Your task to perform on an android device: Search for a new lipgloss Image 0: 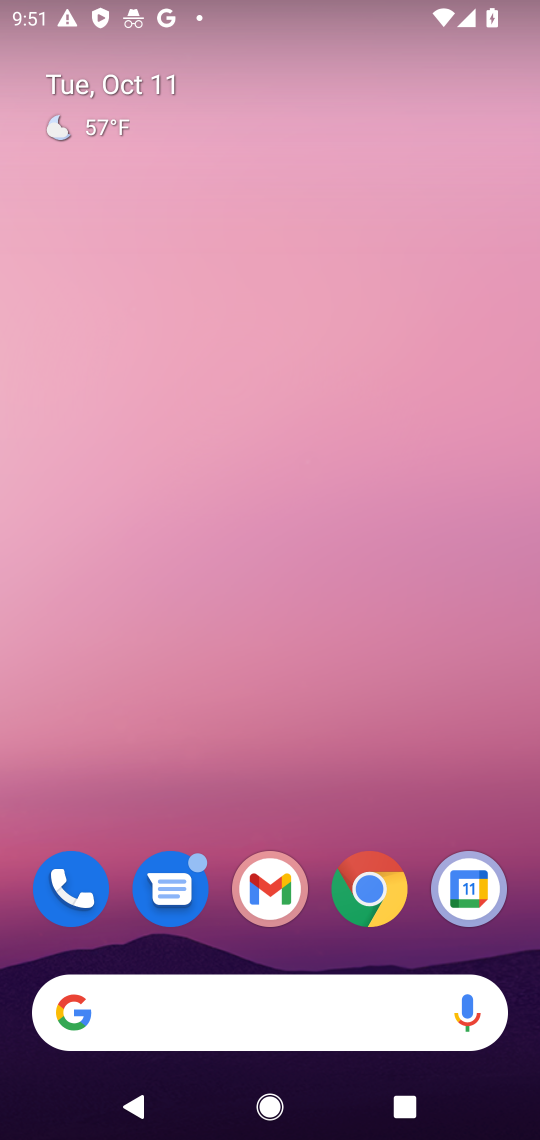
Step 0: click (260, 1019)
Your task to perform on an android device: Search for a new lipgloss Image 1: 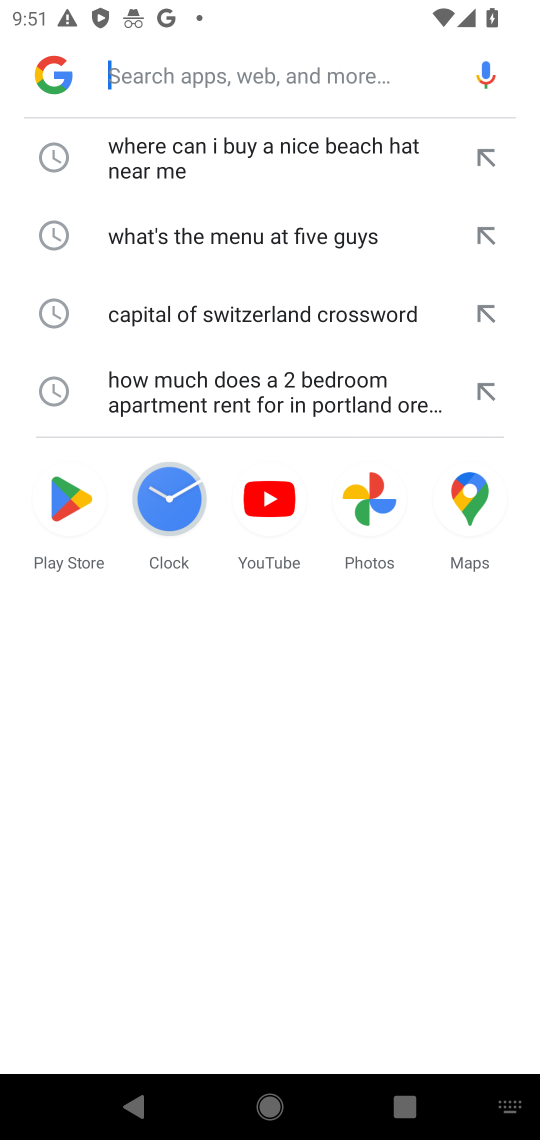
Step 1: click (130, 71)
Your task to perform on an android device: Search for a new lipgloss Image 2: 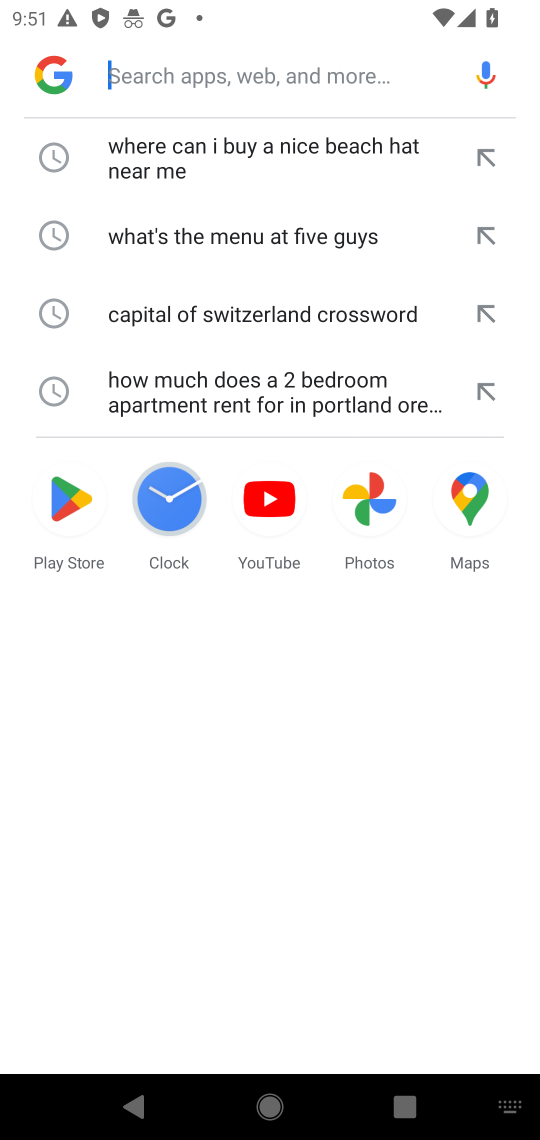
Step 2: click (208, 71)
Your task to perform on an android device: Search for a new lipgloss Image 3: 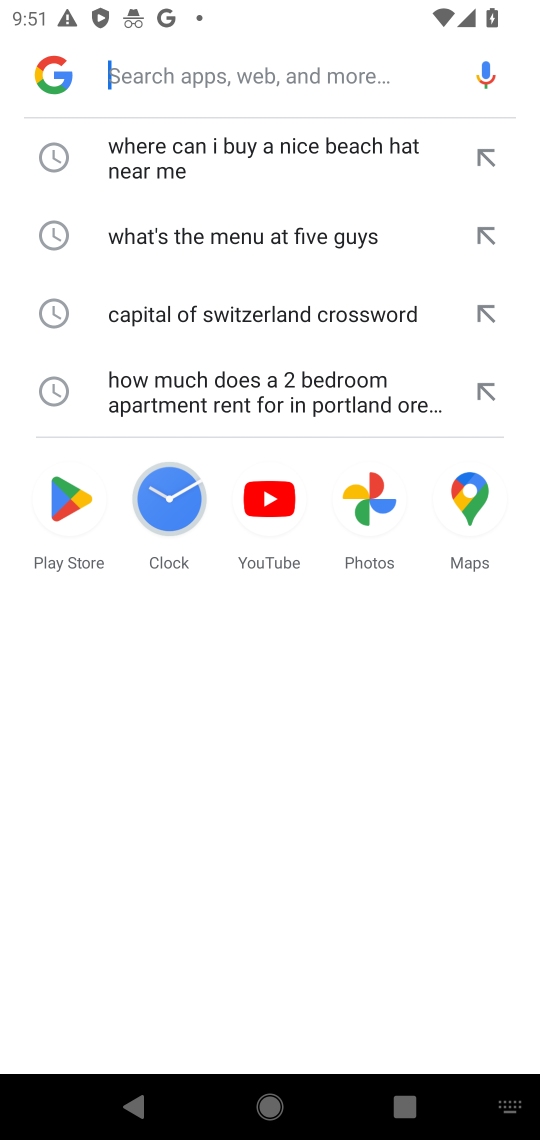
Step 3: type " new lipgloss"
Your task to perform on an android device: Search for a new lipgloss Image 4: 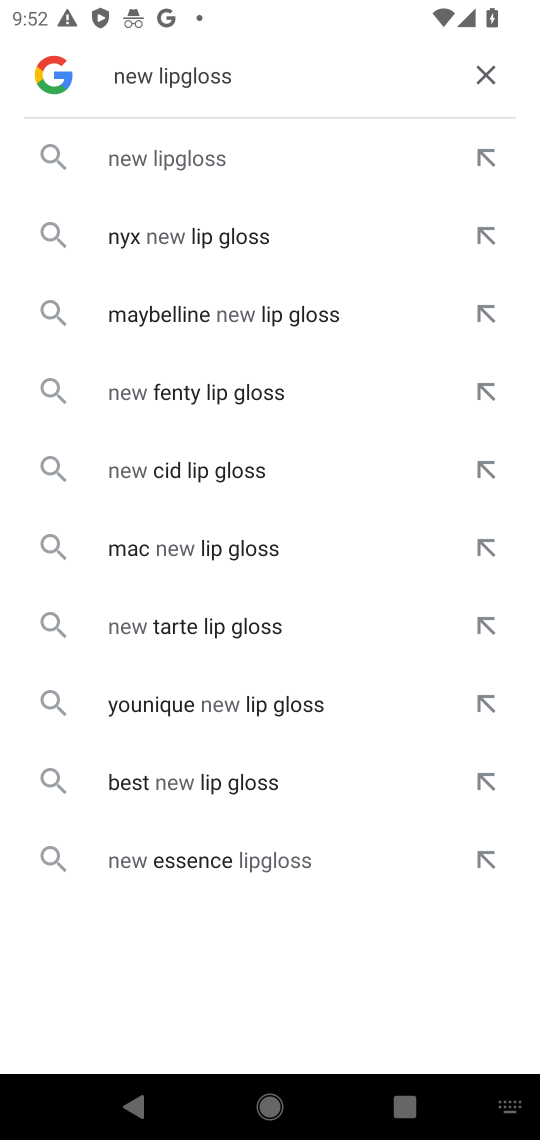
Step 4: click (173, 146)
Your task to perform on an android device: Search for a new lipgloss Image 5: 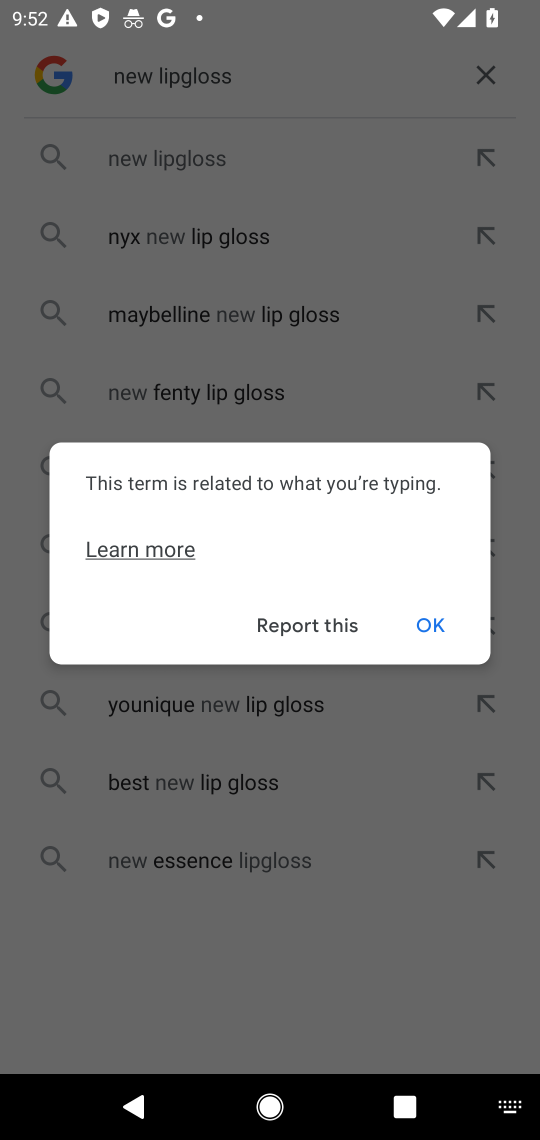
Step 5: click (449, 629)
Your task to perform on an android device: Search for a new lipgloss Image 6: 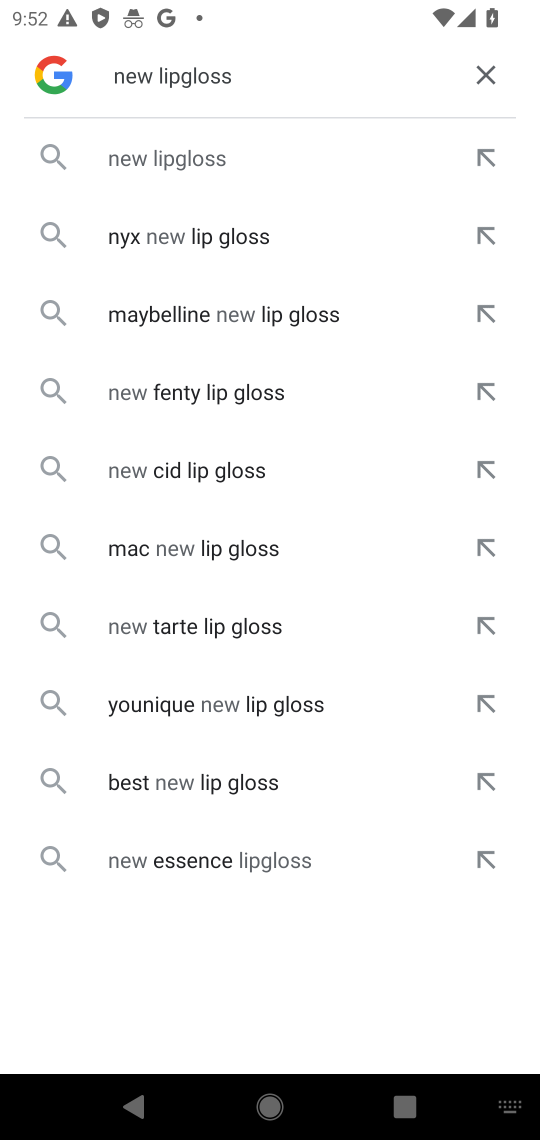
Step 6: click (139, 175)
Your task to perform on an android device: Search for a new lipgloss Image 7: 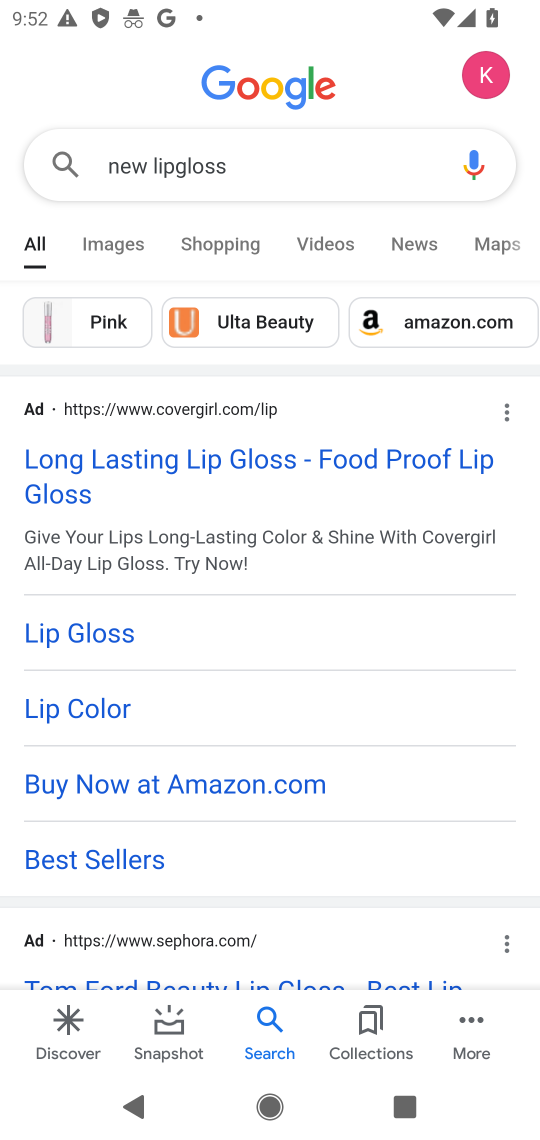
Step 7: task complete